Your task to perform on an android device: Open the calendar and show me this week's events? Image 0: 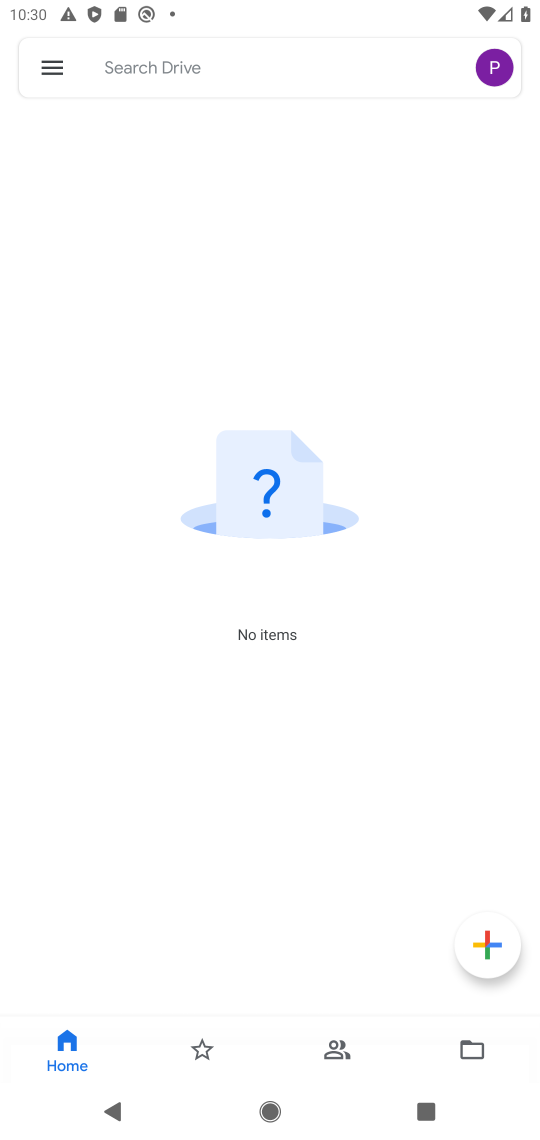
Step 0: press home button
Your task to perform on an android device: Open the calendar and show me this week's events? Image 1: 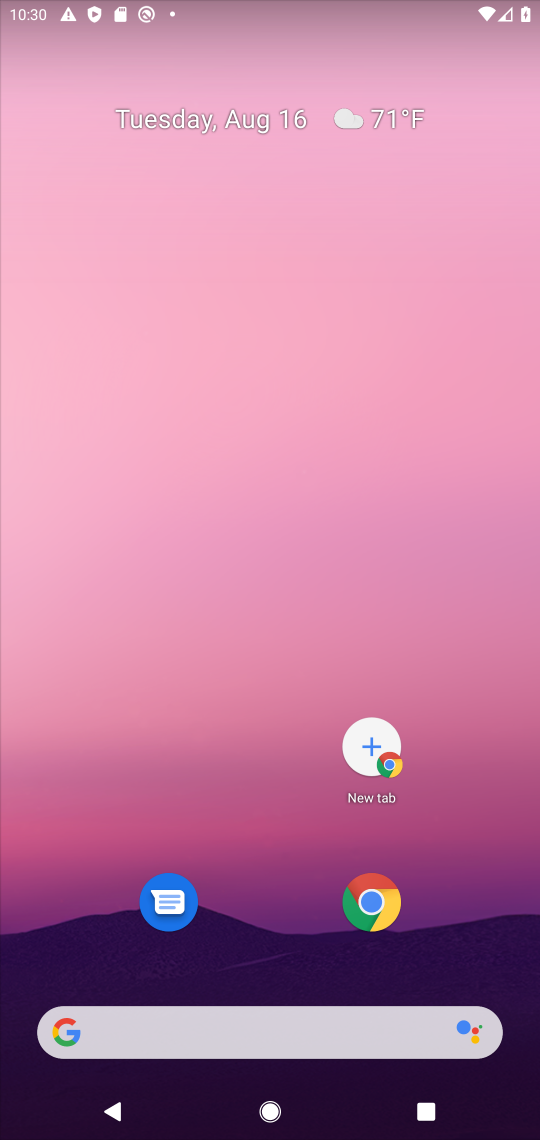
Step 1: drag from (227, 908) to (272, 135)
Your task to perform on an android device: Open the calendar and show me this week's events? Image 2: 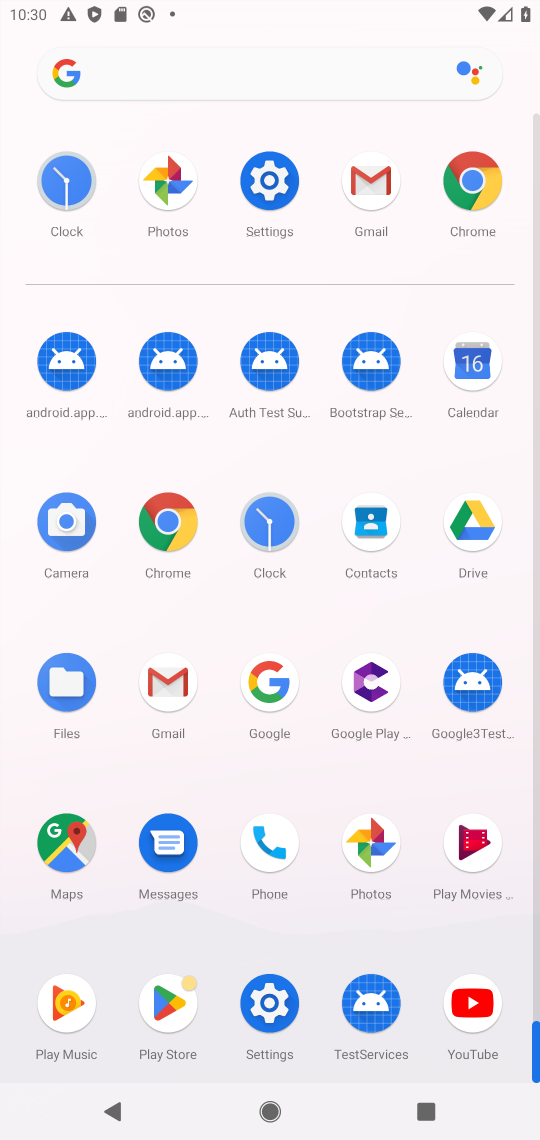
Step 2: click (465, 349)
Your task to perform on an android device: Open the calendar and show me this week's events? Image 3: 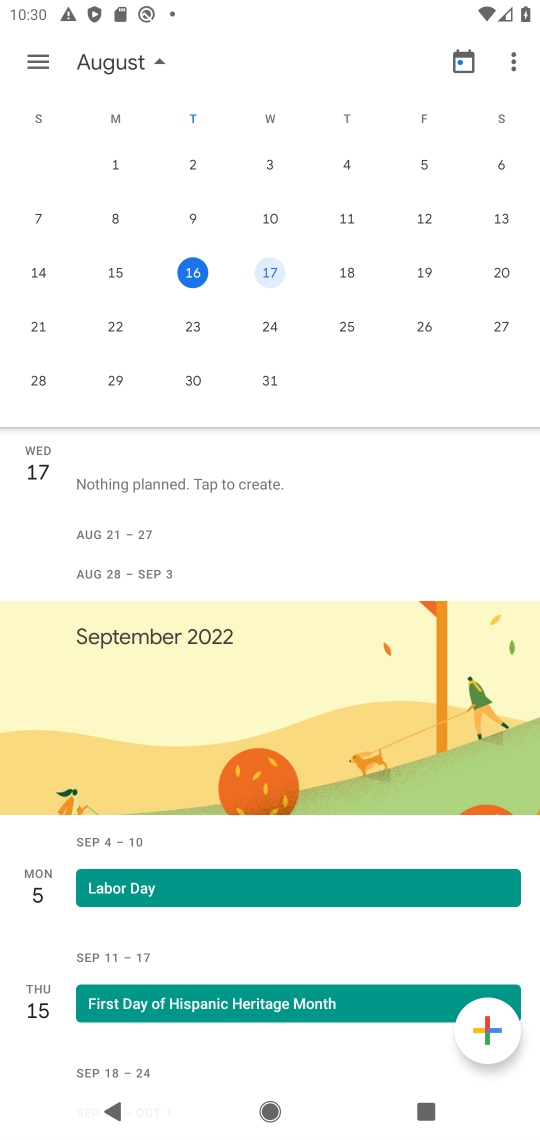
Step 3: task complete